Your task to perform on an android device: see tabs open on other devices in the chrome app Image 0: 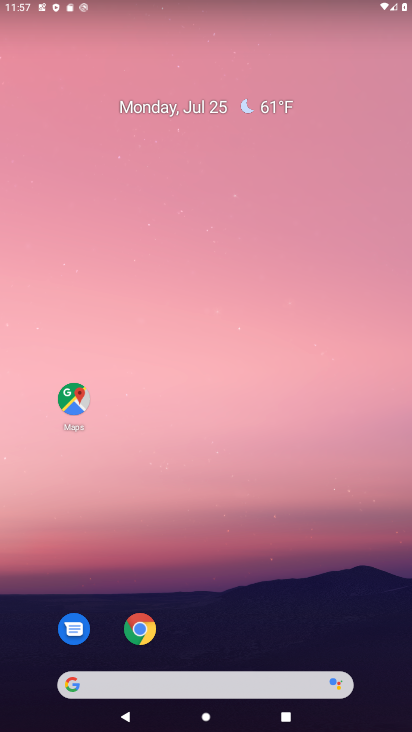
Step 0: click (150, 632)
Your task to perform on an android device: see tabs open on other devices in the chrome app Image 1: 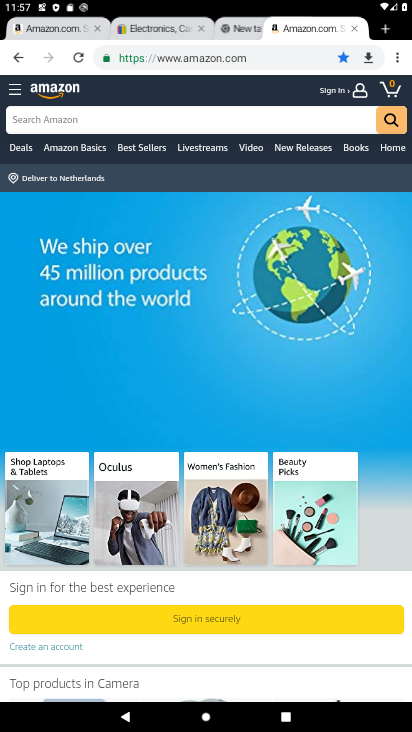
Step 1: click (400, 63)
Your task to perform on an android device: see tabs open on other devices in the chrome app Image 2: 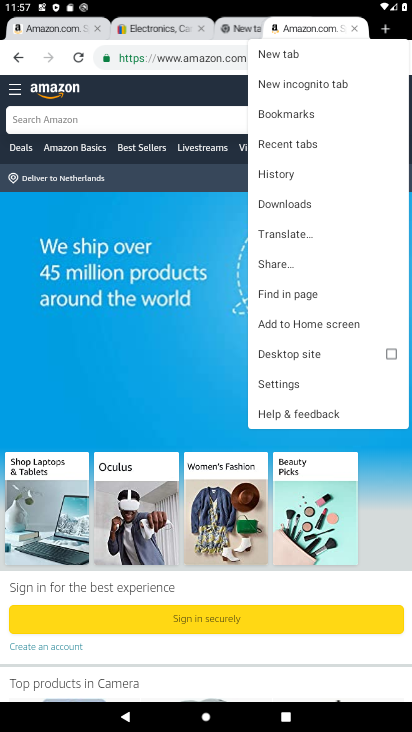
Step 2: click (305, 136)
Your task to perform on an android device: see tabs open on other devices in the chrome app Image 3: 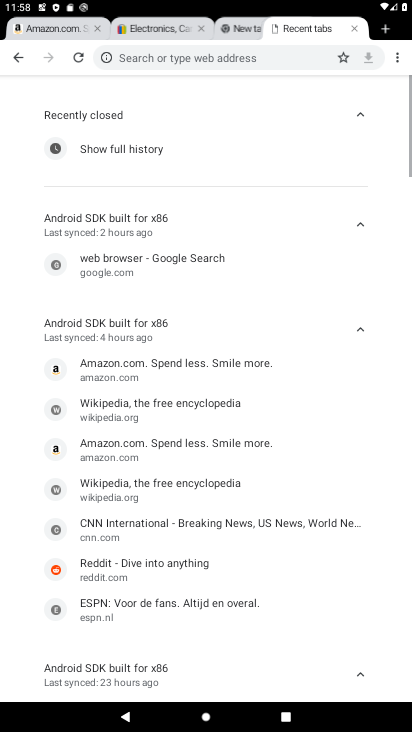
Step 3: task complete